Your task to perform on an android device: Open settings on Google Maps Image 0: 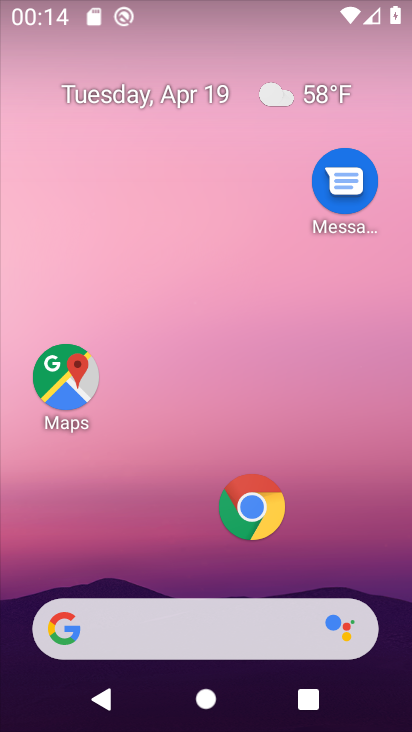
Step 0: drag from (162, 537) to (229, 6)
Your task to perform on an android device: Open settings on Google Maps Image 1: 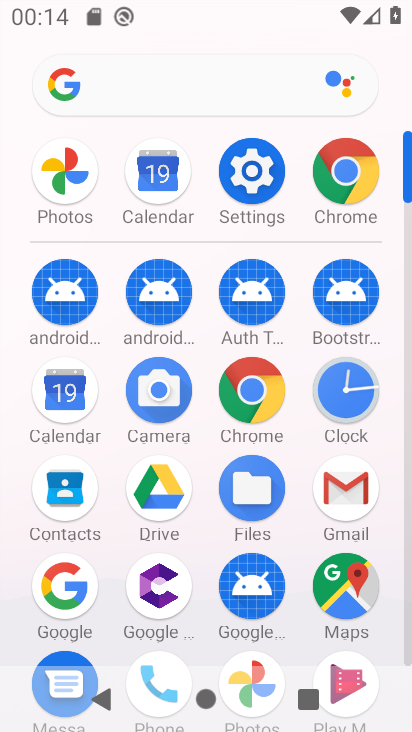
Step 1: click (348, 576)
Your task to perform on an android device: Open settings on Google Maps Image 2: 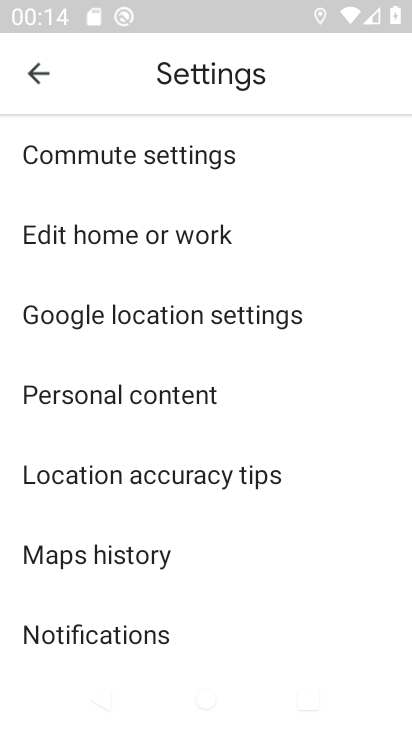
Step 2: task complete